Your task to perform on an android device: Open the map Image 0: 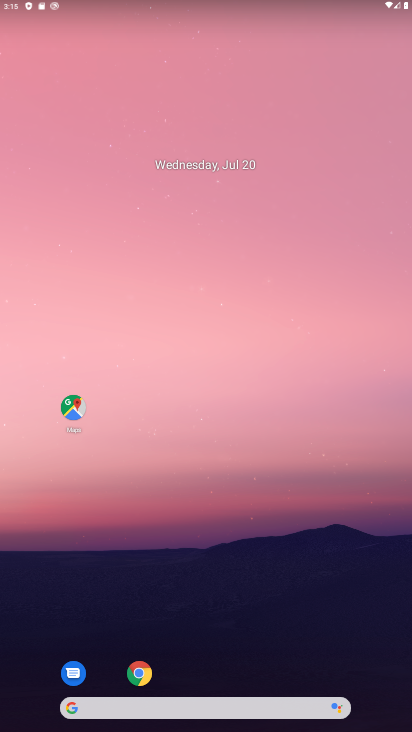
Step 0: drag from (221, 663) to (18, 317)
Your task to perform on an android device: Open the map Image 1: 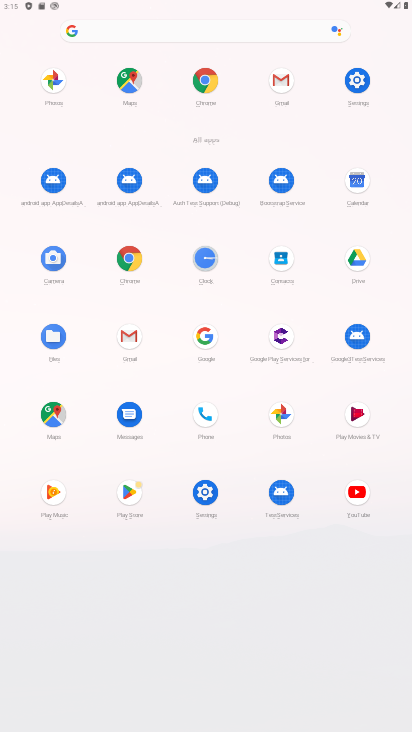
Step 1: click (64, 408)
Your task to perform on an android device: Open the map Image 2: 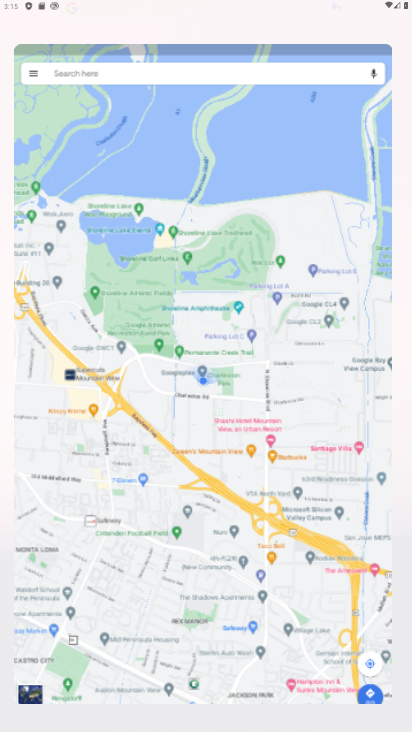
Step 2: click (57, 413)
Your task to perform on an android device: Open the map Image 3: 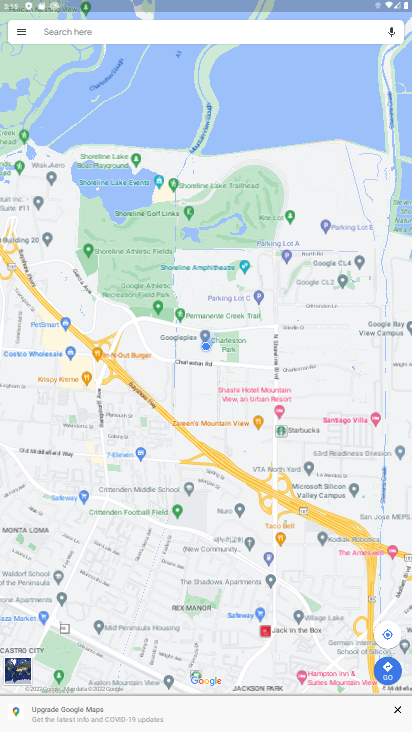
Step 3: task complete